Your task to perform on an android device: open app "Roku - Official Remote Control" (install if not already installed) and go to login screen Image 0: 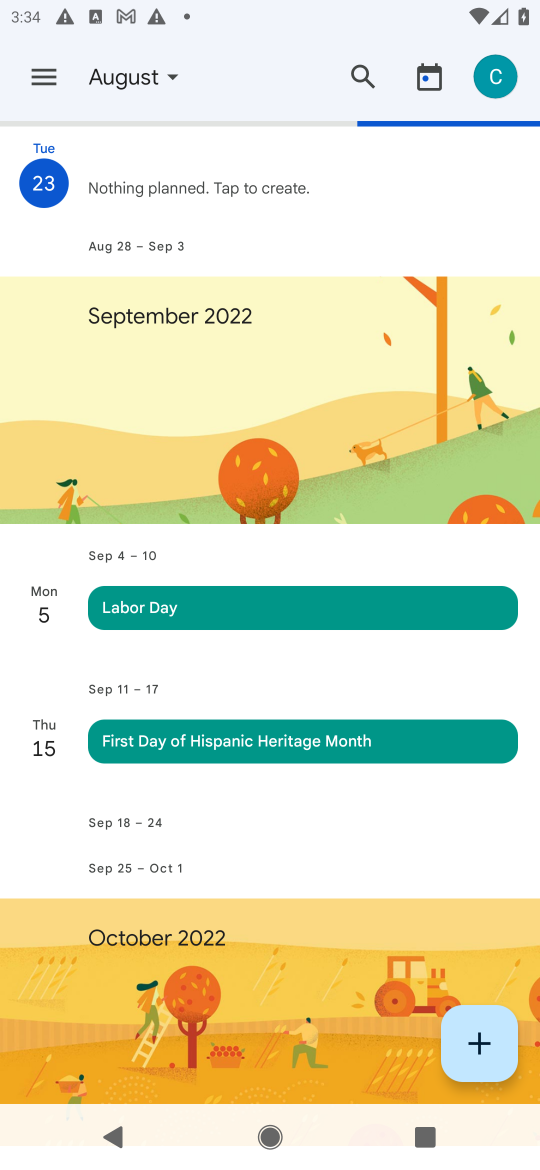
Step 0: press home button
Your task to perform on an android device: open app "Roku - Official Remote Control" (install if not already installed) and go to login screen Image 1: 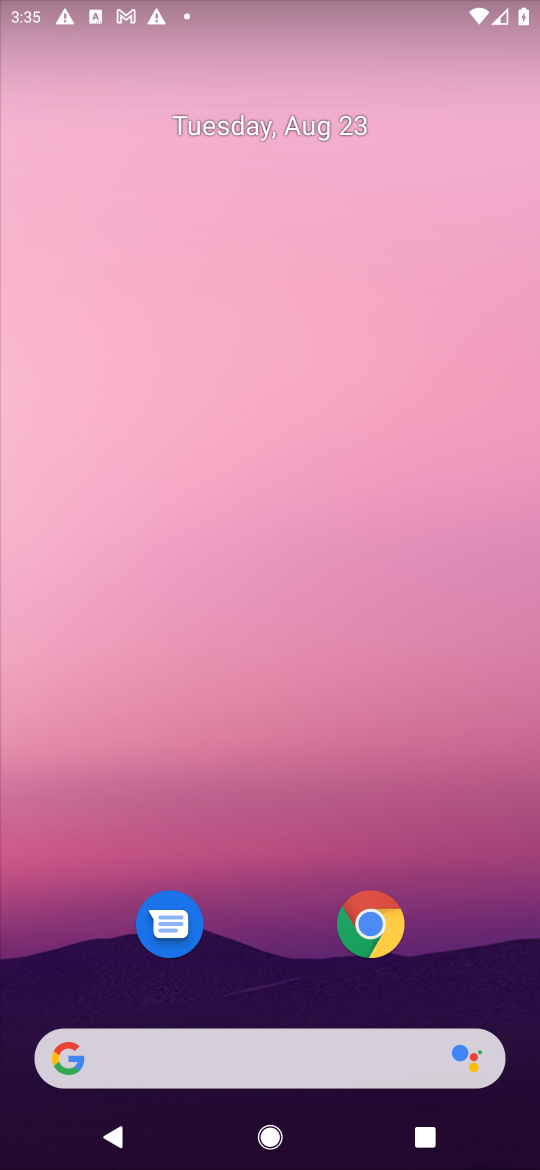
Step 1: drag from (482, 946) to (433, 107)
Your task to perform on an android device: open app "Roku - Official Remote Control" (install if not already installed) and go to login screen Image 2: 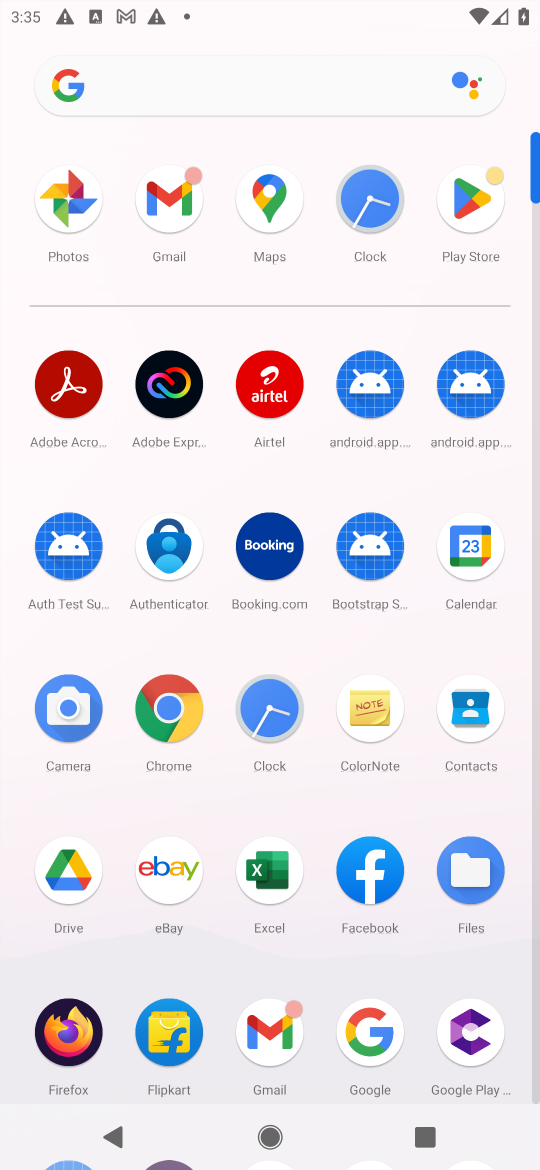
Step 2: click (479, 205)
Your task to perform on an android device: open app "Roku - Official Remote Control" (install if not already installed) and go to login screen Image 3: 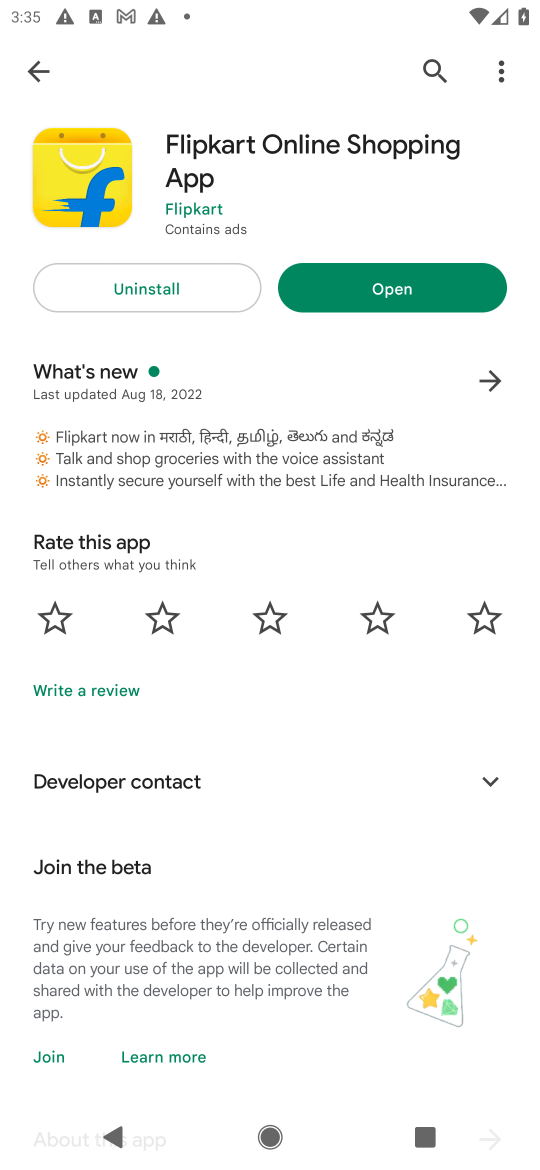
Step 3: press back button
Your task to perform on an android device: open app "Roku - Official Remote Control" (install if not already installed) and go to login screen Image 4: 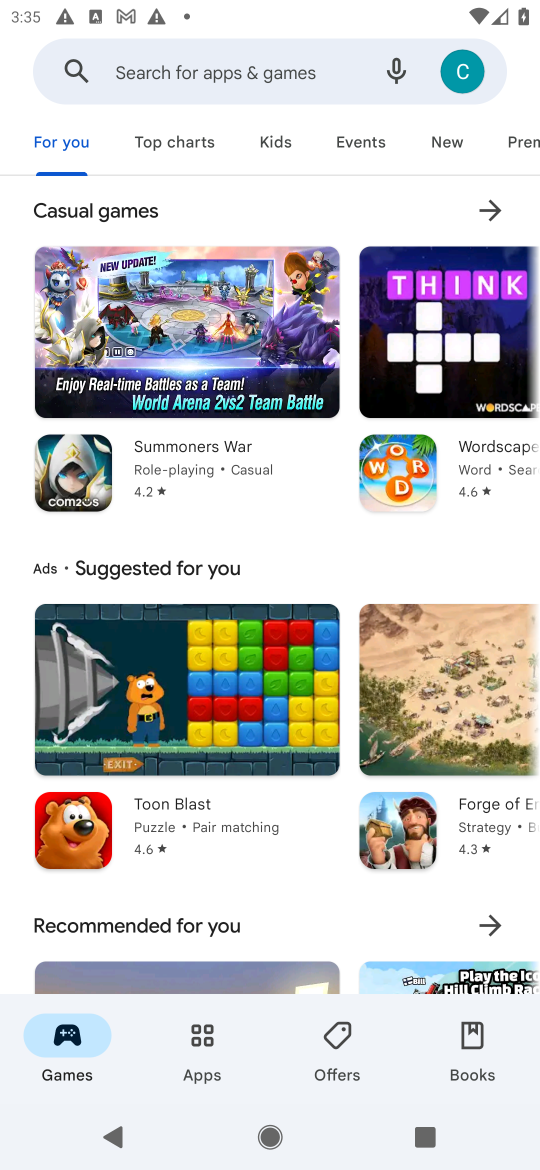
Step 4: click (280, 68)
Your task to perform on an android device: open app "Roku - Official Remote Control" (install if not already installed) and go to login screen Image 5: 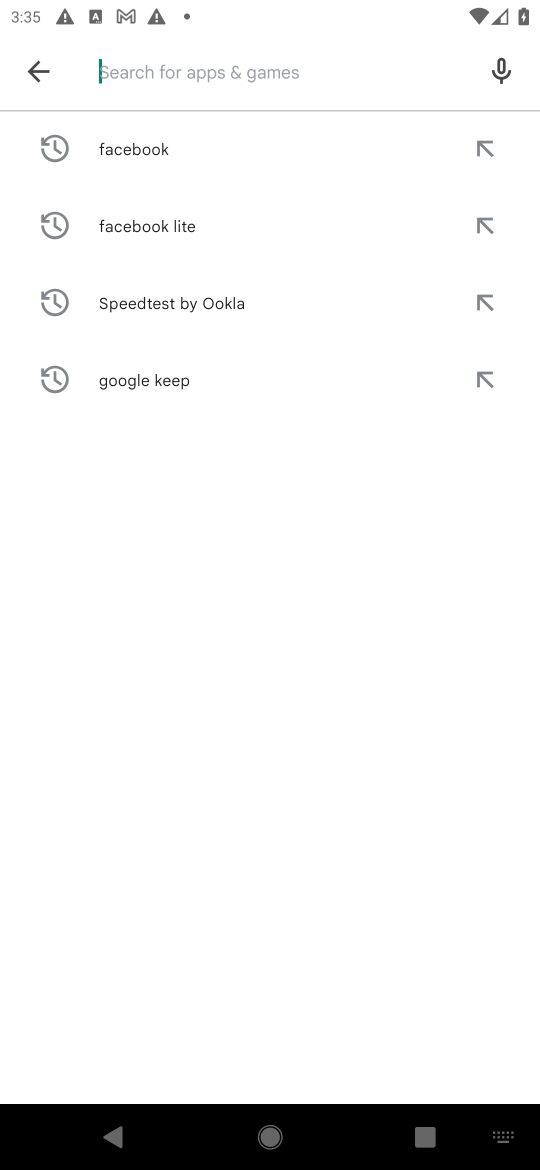
Step 5: press enter
Your task to perform on an android device: open app "Roku - Official Remote Control" (install if not already installed) and go to login screen Image 6: 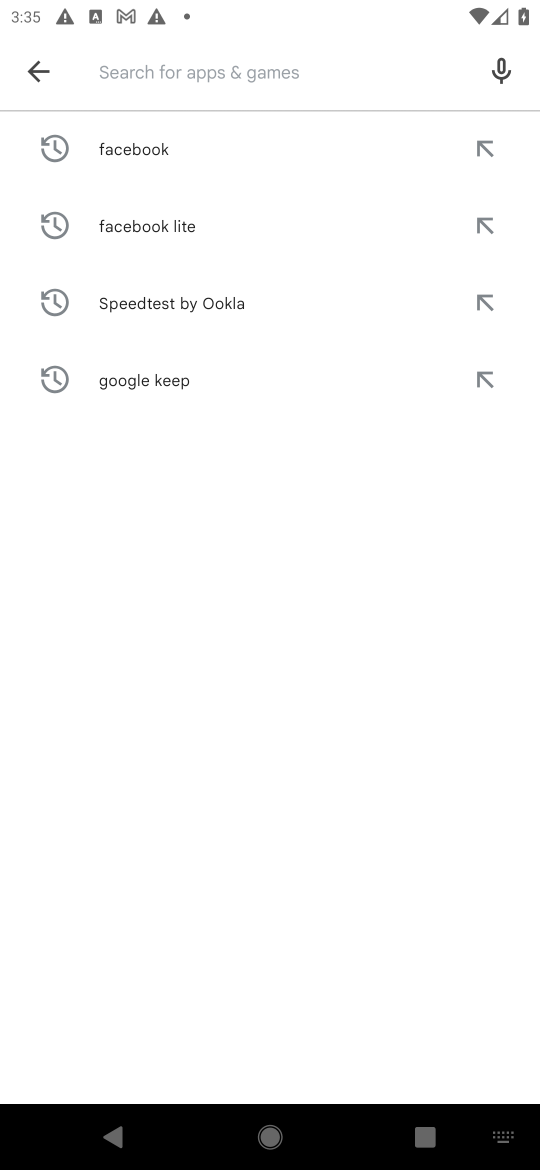
Step 6: type "Roku - Official Remote Control"
Your task to perform on an android device: open app "Roku - Official Remote Control" (install if not already installed) and go to login screen Image 7: 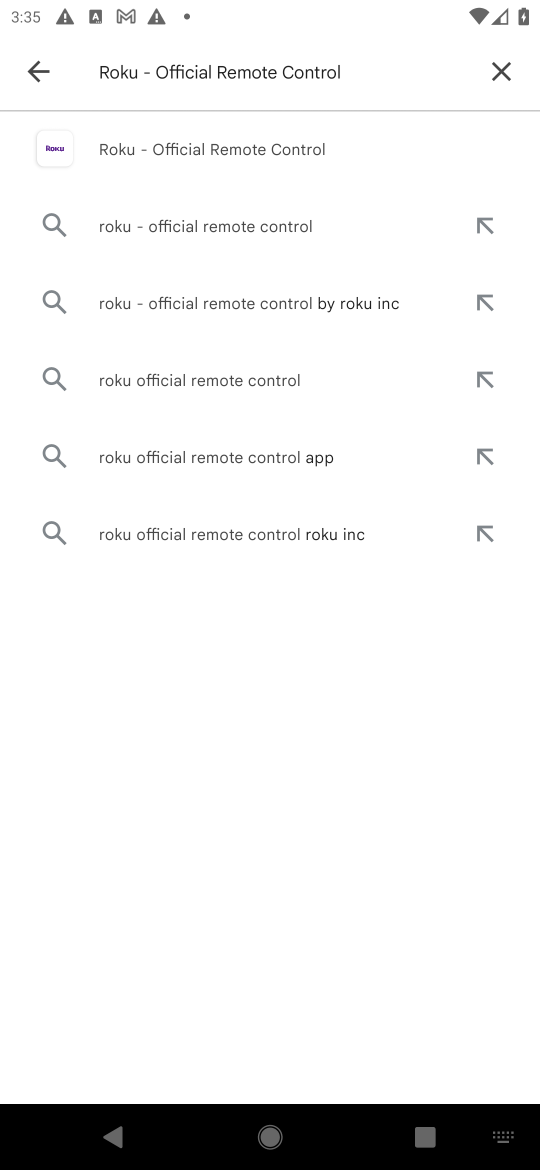
Step 7: click (186, 153)
Your task to perform on an android device: open app "Roku - Official Remote Control" (install if not already installed) and go to login screen Image 8: 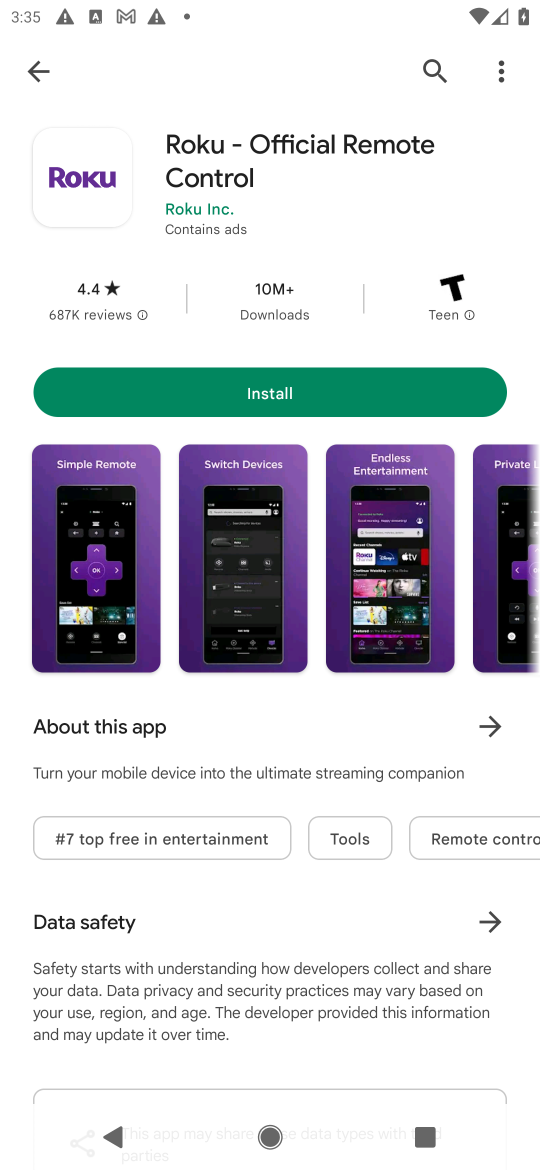
Step 8: click (331, 388)
Your task to perform on an android device: open app "Roku - Official Remote Control" (install if not already installed) and go to login screen Image 9: 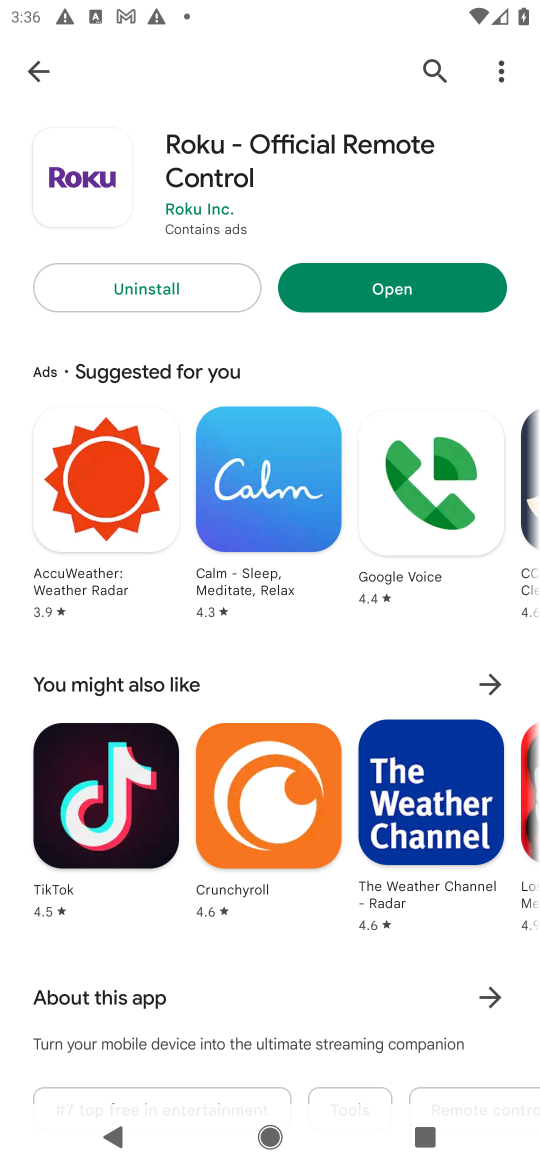
Step 9: click (464, 281)
Your task to perform on an android device: open app "Roku - Official Remote Control" (install if not already installed) and go to login screen Image 10: 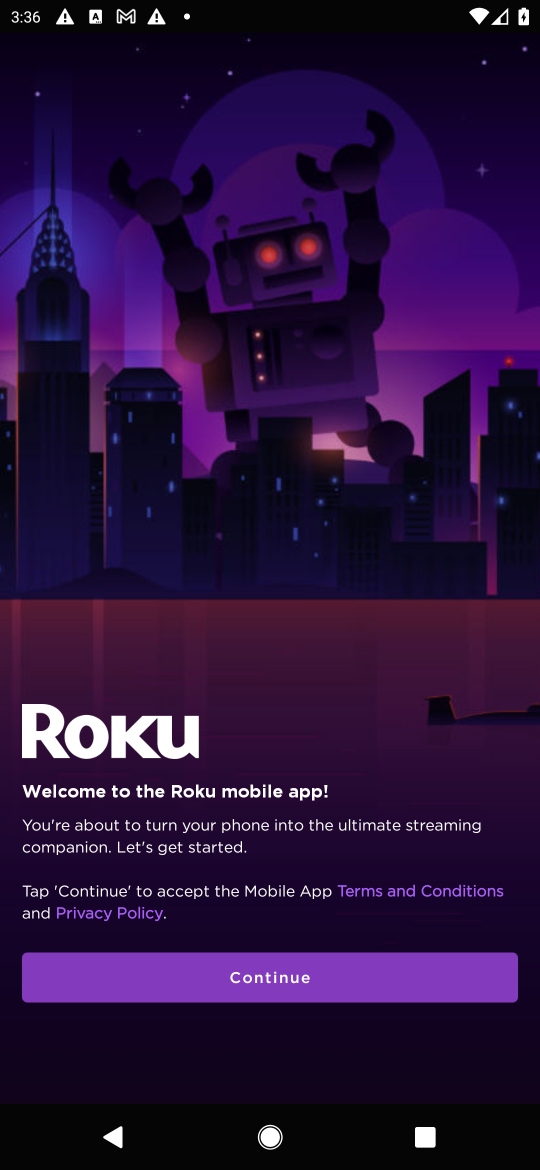
Step 10: click (314, 974)
Your task to perform on an android device: open app "Roku - Official Remote Control" (install if not already installed) and go to login screen Image 11: 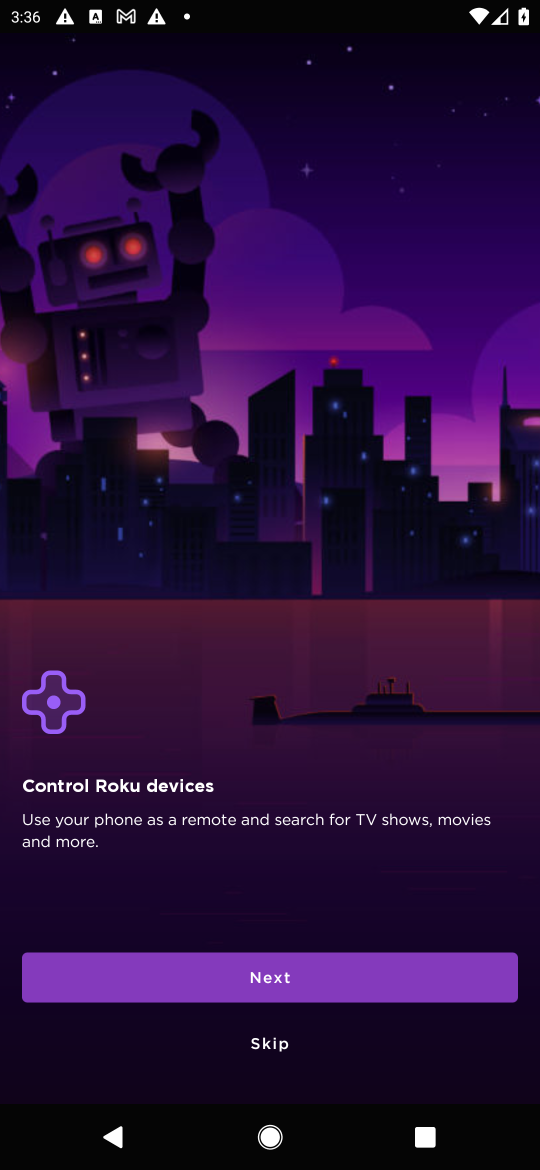
Step 11: click (320, 983)
Your task to perform on an android device: open app "Roku - Official Remote Control" (install if not already installed) and go to login screen Image 12: 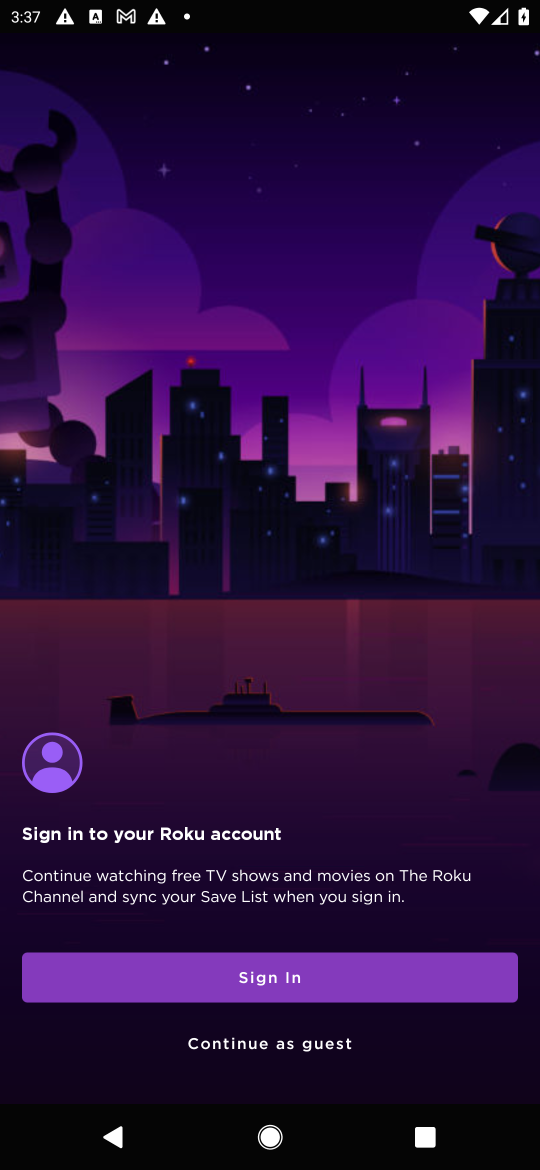
Step 12: click (342, 986)
Your task to perform on an android device: open app "Roku - Official Remote Control" (install if not already installed) and go to login screen Image 13: 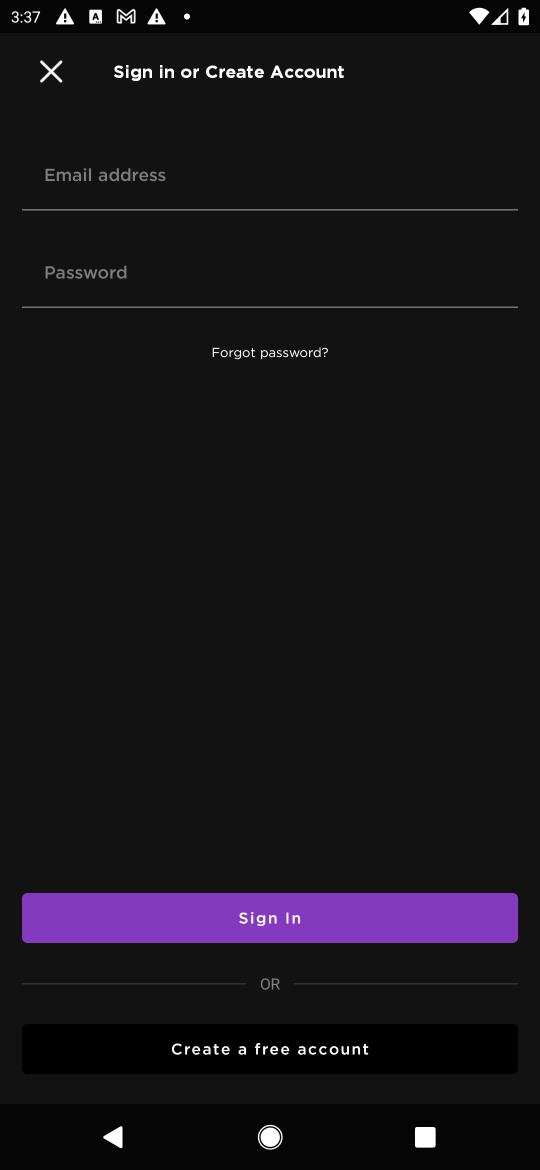
Step 13: task complete